Your task to perform on an android device: Empty the shopping cart on target. Add bose soundlink mini to the cart on target Image 0: 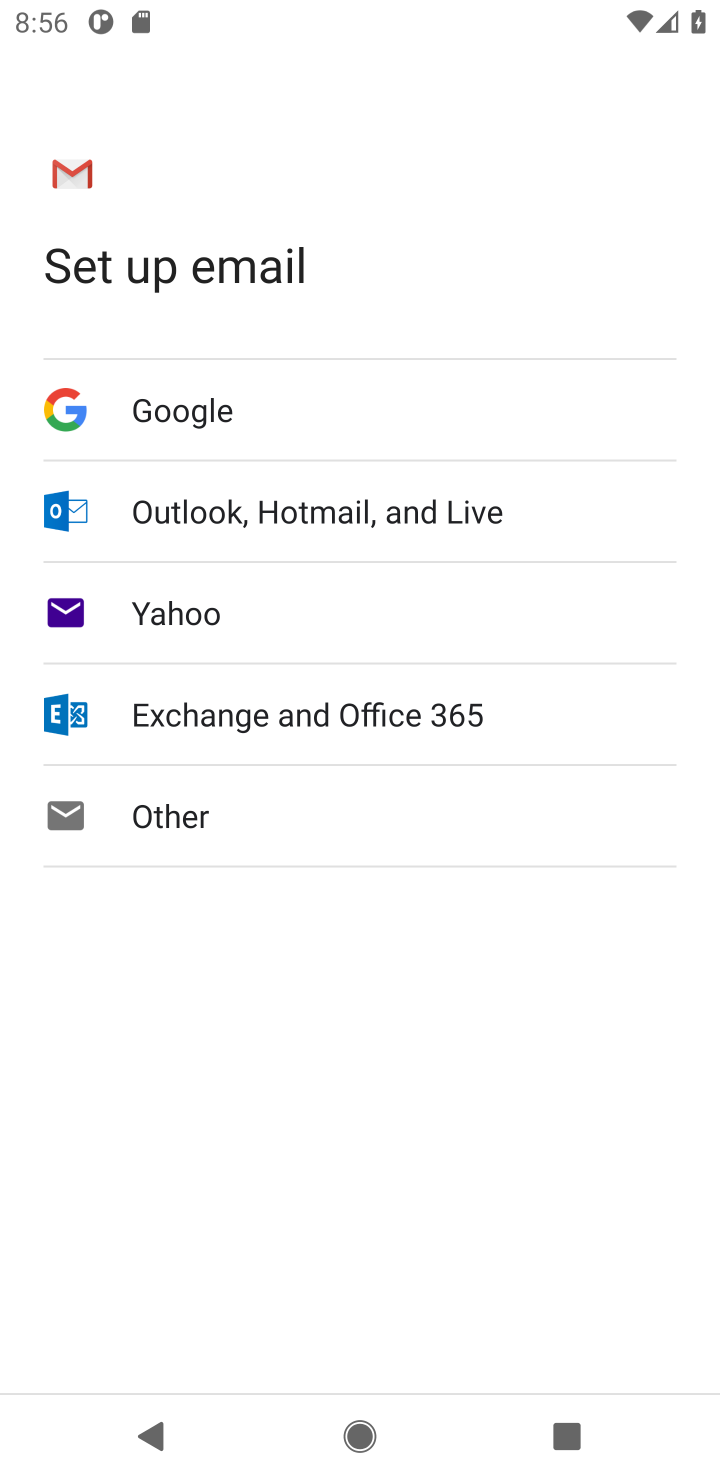
Step 0: press home button
Your task to perform on an android device: Empty the shopping cart on target. Add bose soundlink mini to the cart on target Image 1: 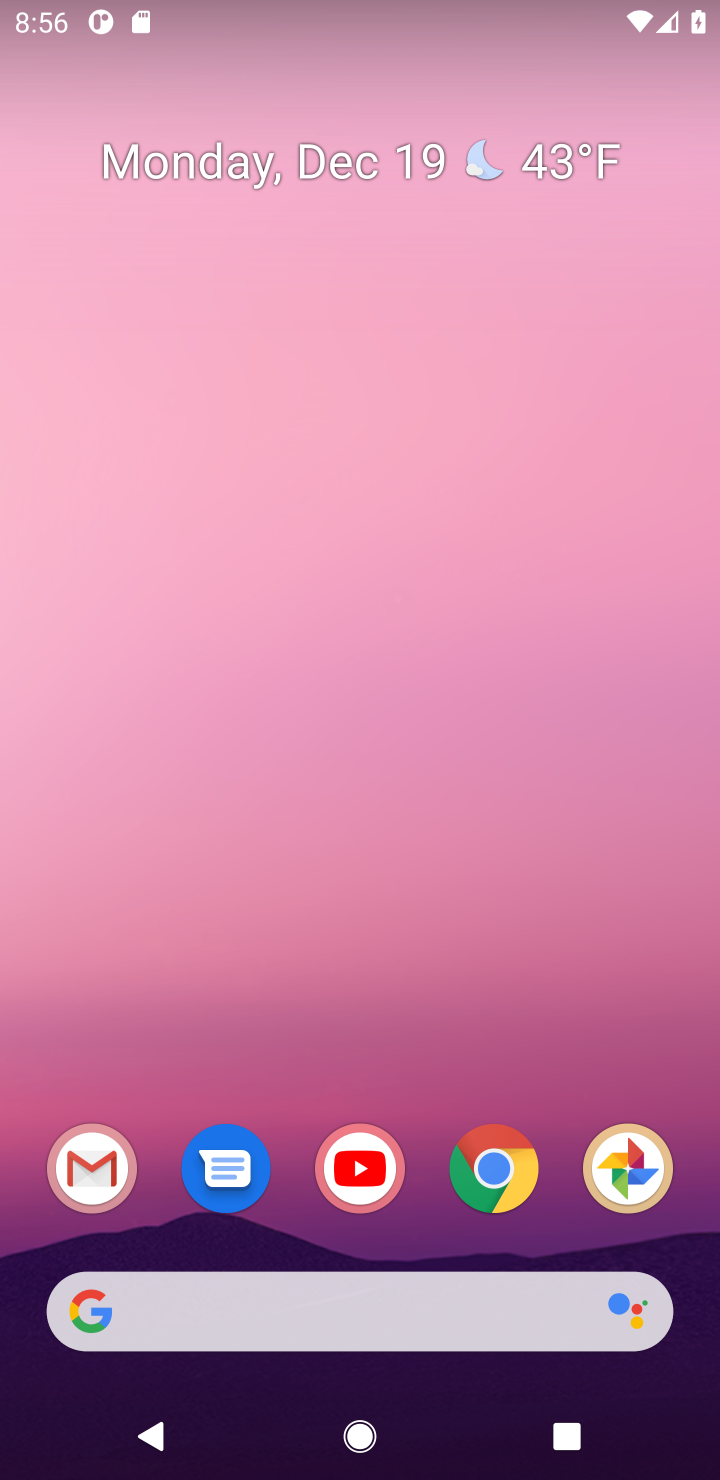
Step 1: click (496, 1166)
Your task to perform on an android device: Empty the shopping cart on target. Add bose soundlink mini to the cart on target Image 2: 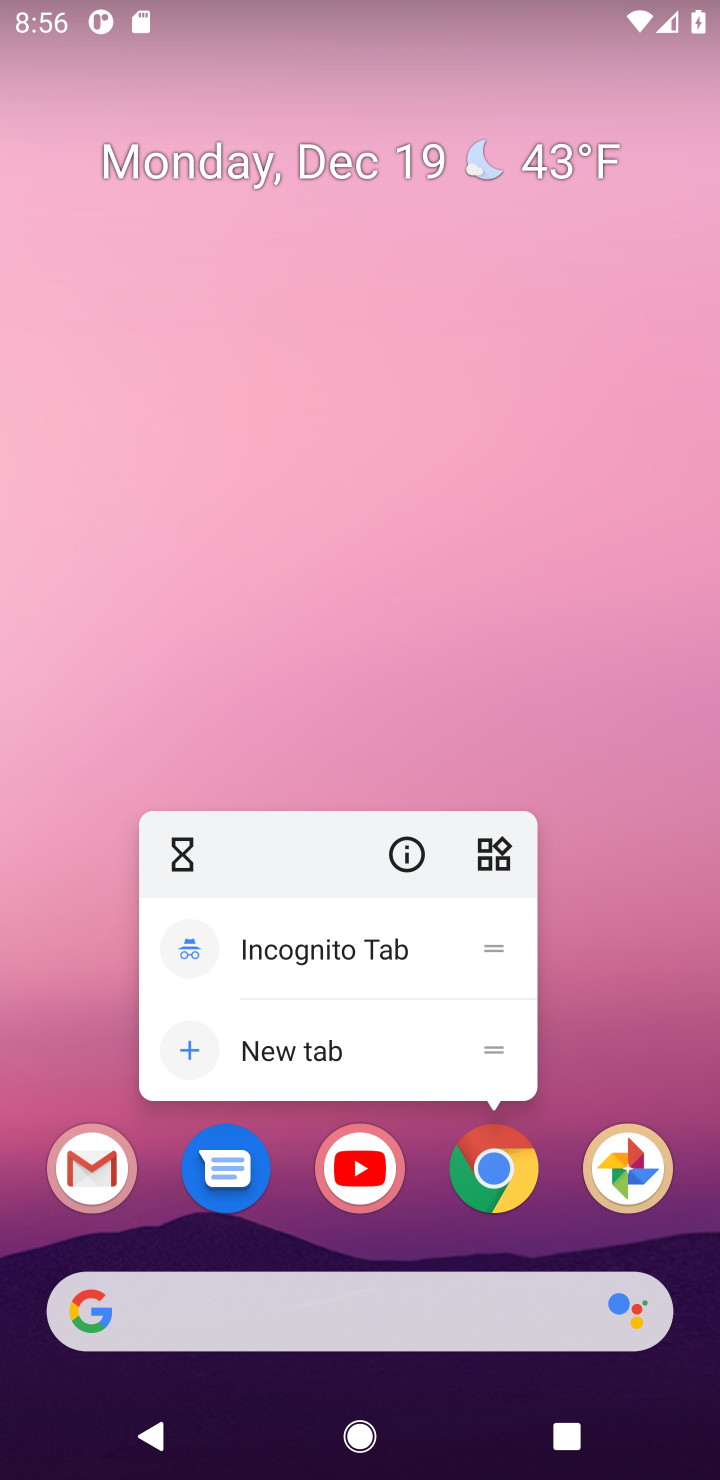
Step 2: click (496, 1166)
Your task to perform on an android device: Empty the shopping cart on target. Add bose soundlink mini to the cart on target Image 3: 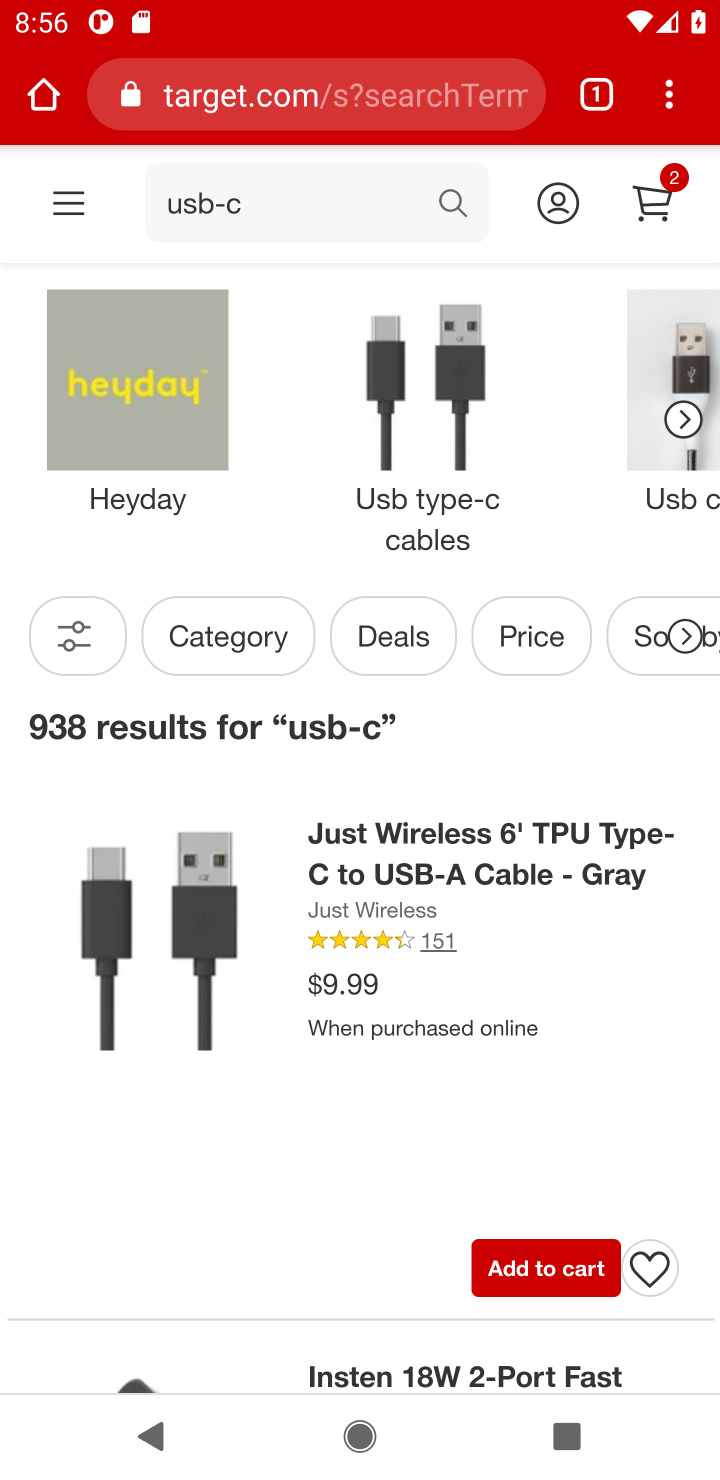
Step 3: click (655, 202)
Your task to perform on an android device: Empty the shopping cart on target. Add bose soundlink mini to the cart on target Image 4: 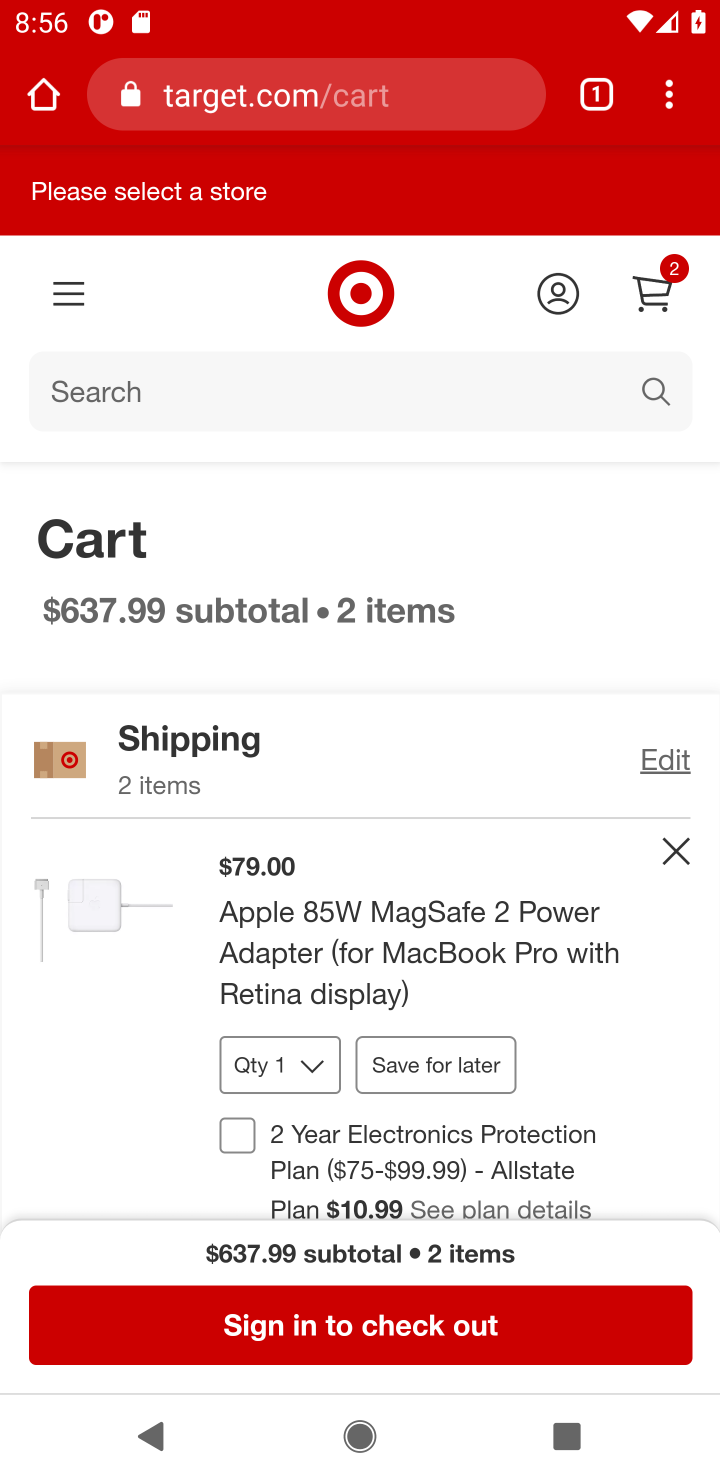
Step 4: click (674, 876)
Your task to perform on an android device: Empty the shopping cart on target. Add bose soundlink mini to the cart on target Image 5: 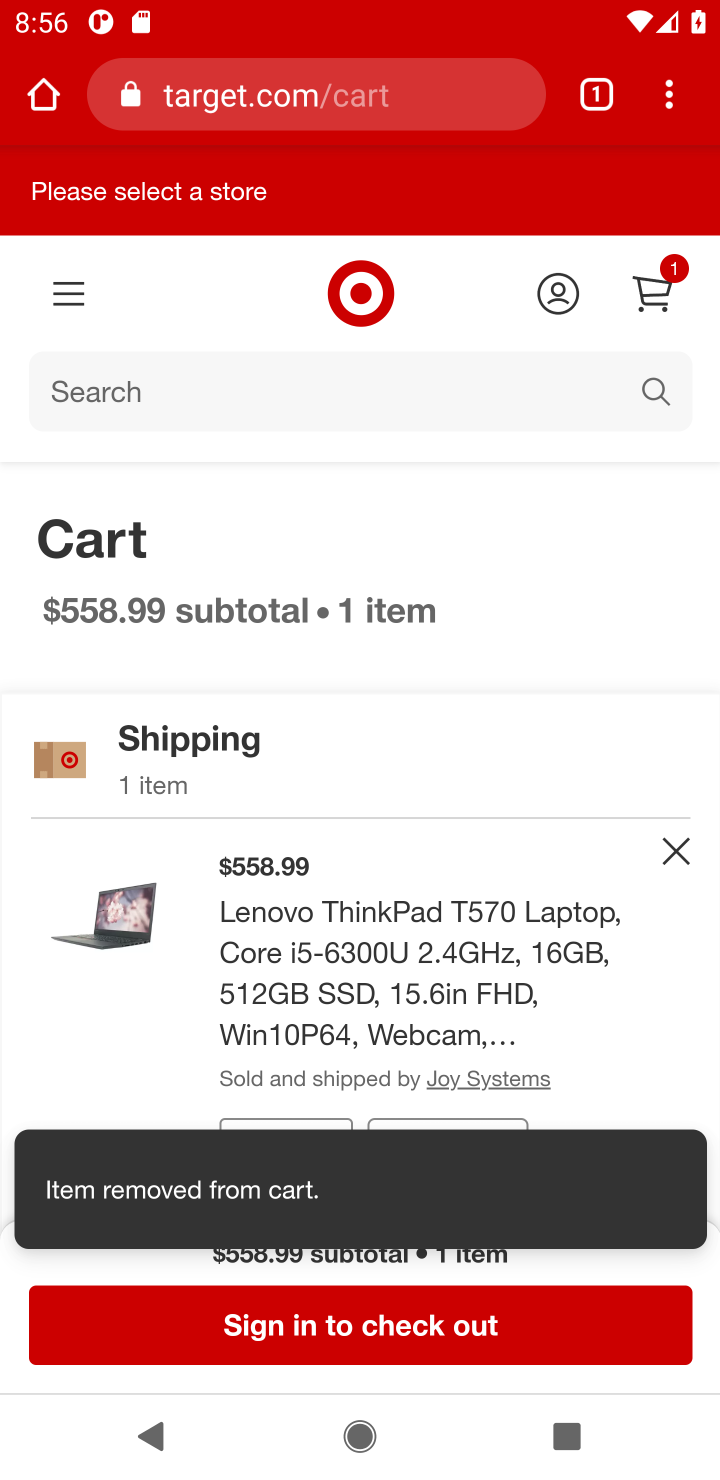
Step 5: click (674, 858)
Your task to perform on an android device: Empty the shopping cart on target. Add bose soundlink mini to the cart on target Image 6: 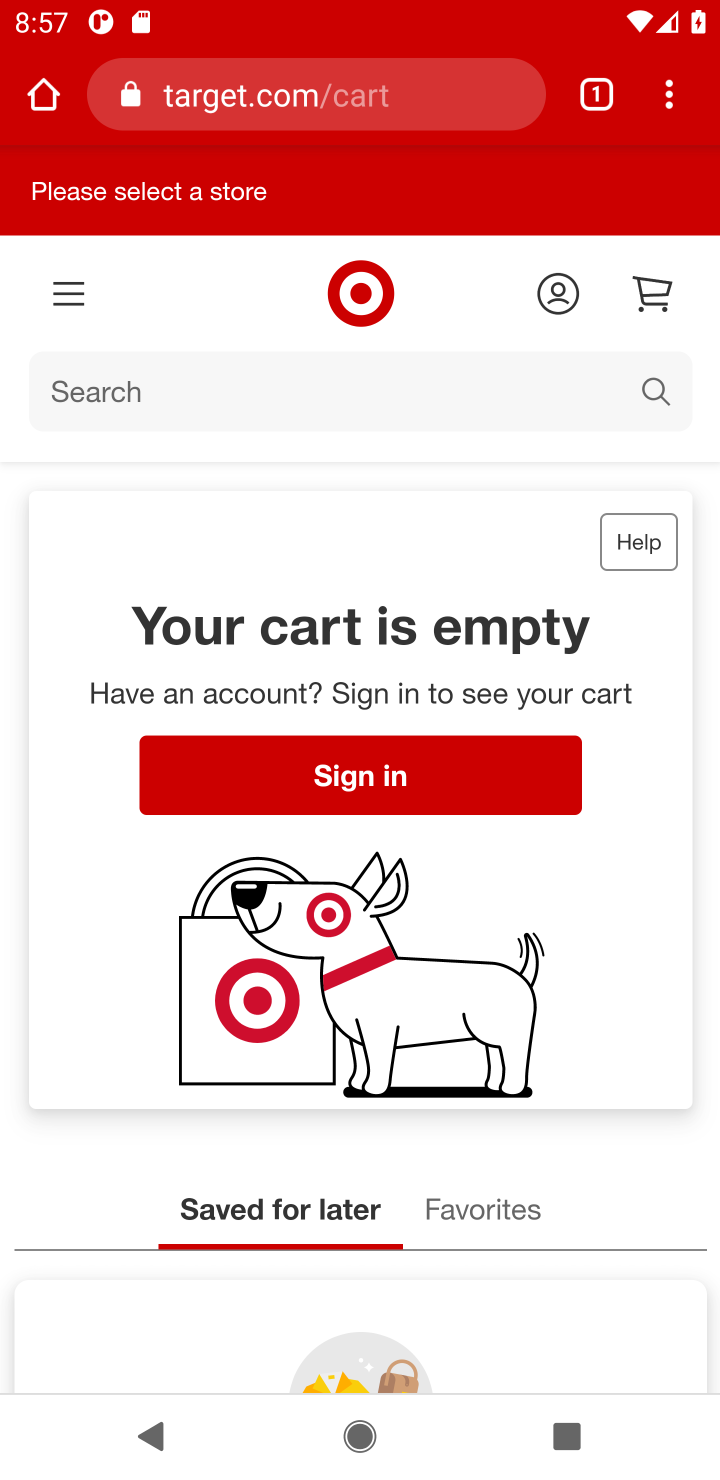
Step 6: click (69, 398)
Your task to perform on an android device: Empty the shopping cart on target. Add bose soundlink mini to the cart on target Image 7: 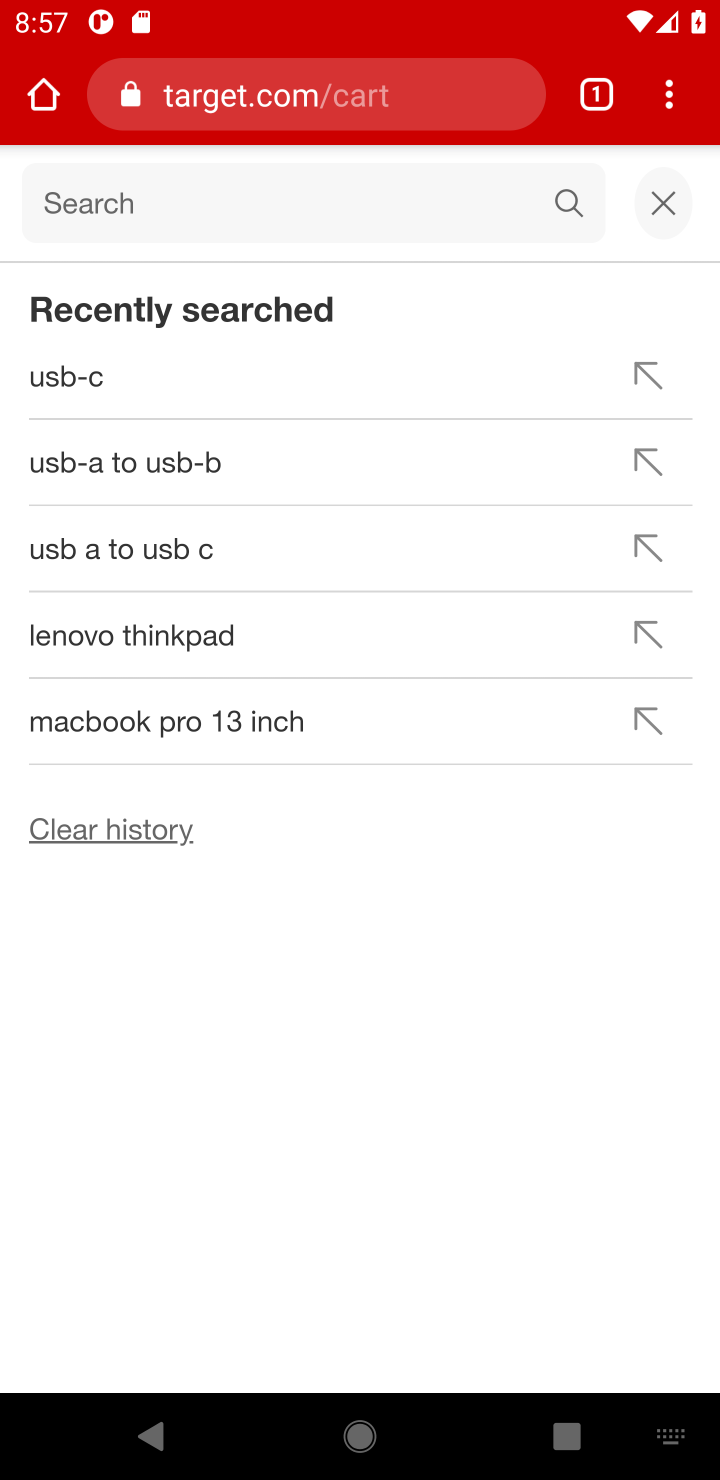
Step 7: type "bose soundlink mini"
Your task to perform on an android device: Empty the shopping cart on target. Add bose soundlink mini to the cart on target Image 8: 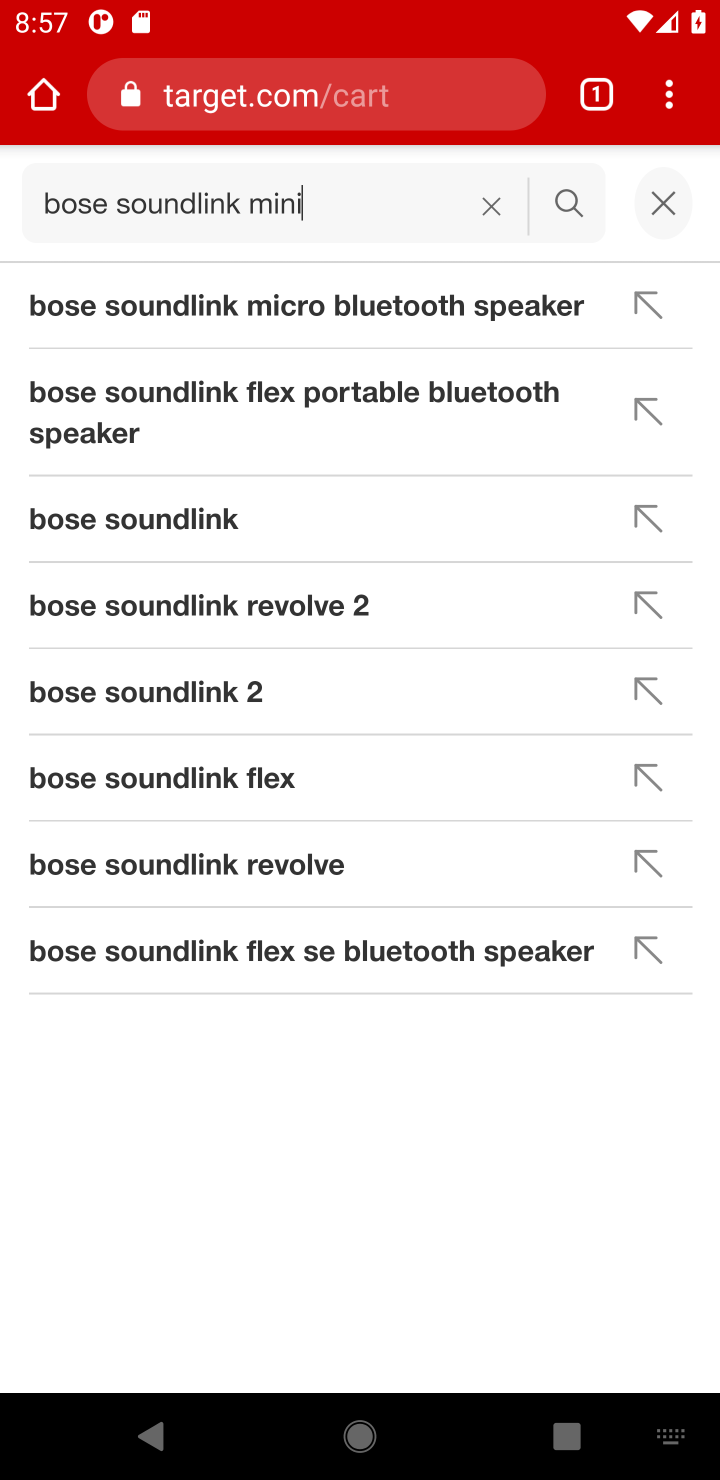
Step 8: click (568, 196)
Your task to perform on an android device: Empty the shopping cart on target. Add bose soundlink mini to the cart on target Image 9: 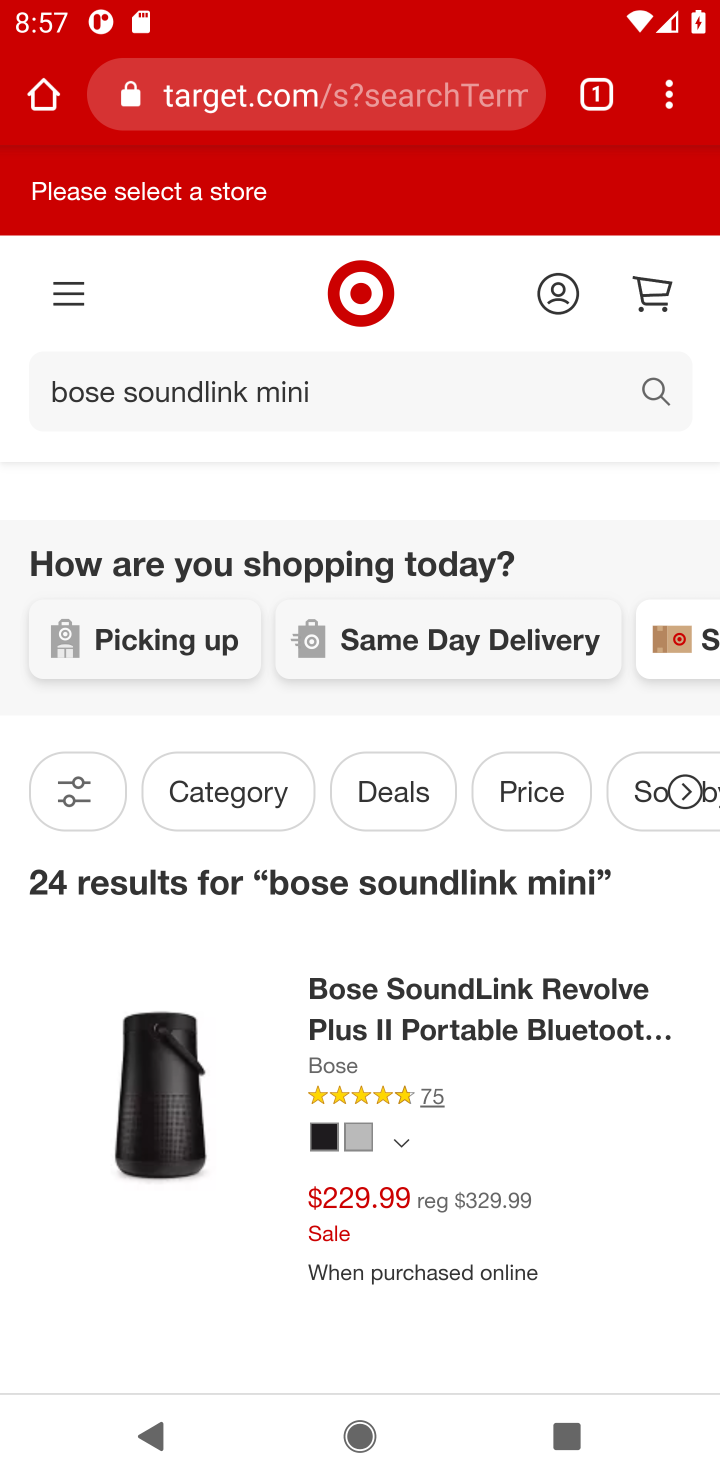
Step 9: task complete